Your task to perform on an android device: Open privacy settings Image 0: 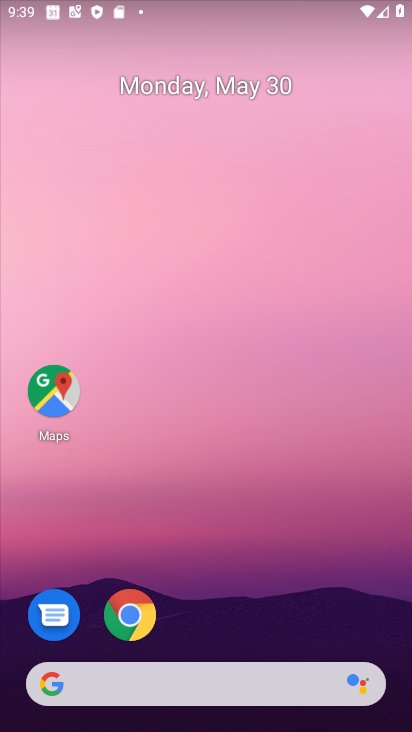
Step 0: drag from (294, 442) to (177, 7)
Your task to perform on an android device: Open privacy settings Image 1: 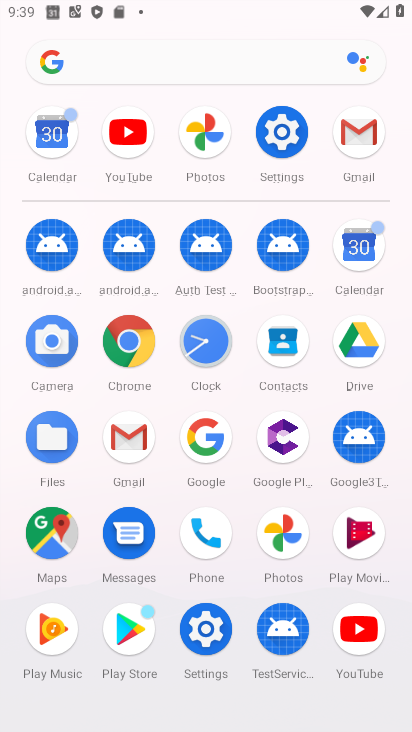
Step 1: click (278, 138)
Your task to perform on an android device: Open privacy settings Image 2: 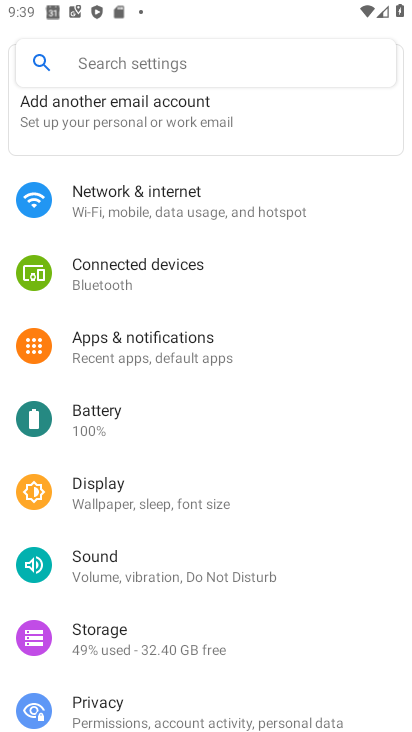
Step 2: click (168, 708)
Your task to perform on an android device: Open privacy settings Image 3: 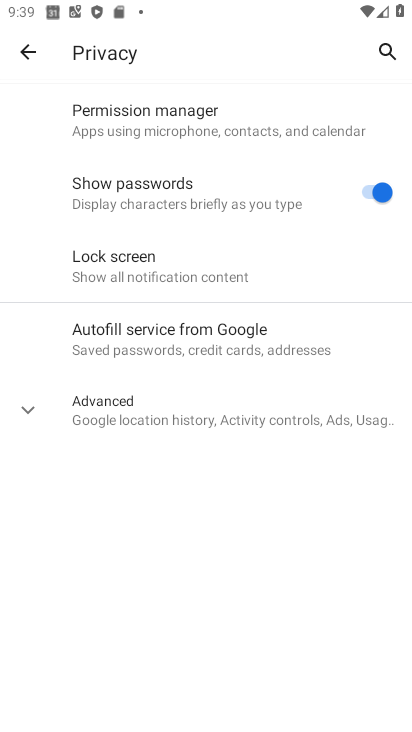
Step 3: task complete